Your task to perform on an android device: Open notification settings Image 0: 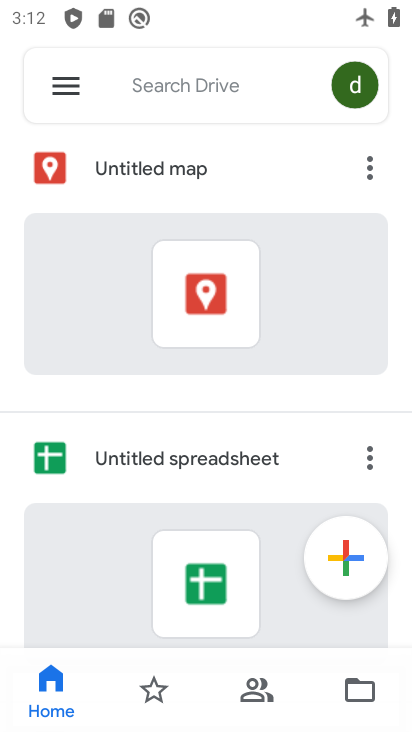
Step 0: press home button
Your task to perform on an android device: Open notification settings Image 1: 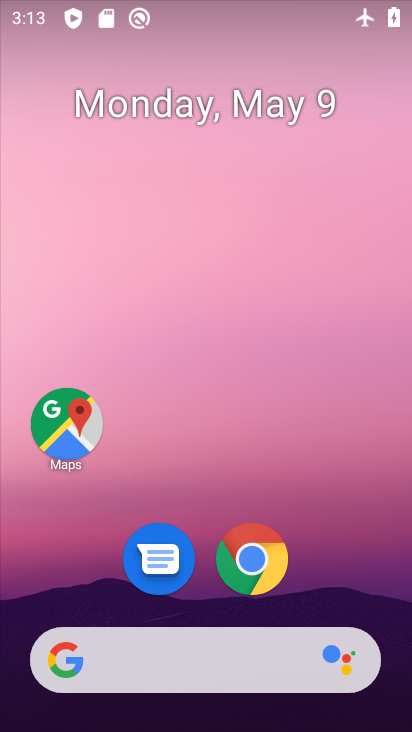
Step 1: drag from (200, 722) to (197, 143)
Your task to perform on an android device: Open notification settings Image 2: 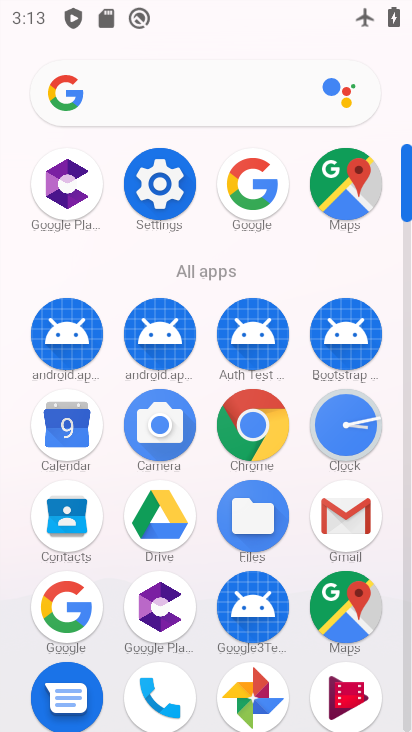
Step 2: click (155, 189)
Your task to perform on an android device: Open notification settings Image 3: 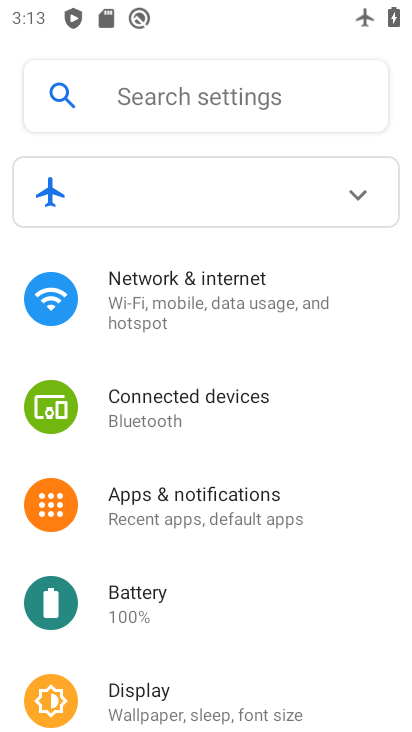
Step 3: click (173, 508)
Your task to perform on an android device: Open notification settings Image 4: 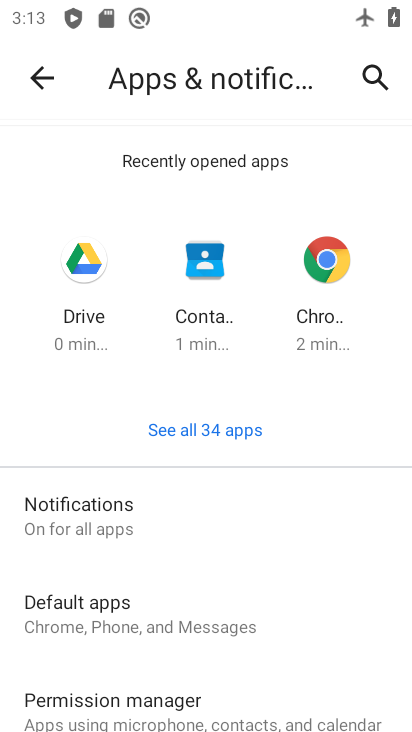
Step 4: click (71, 523)
Your task to perform on an android device: Open notification settings Image 5: 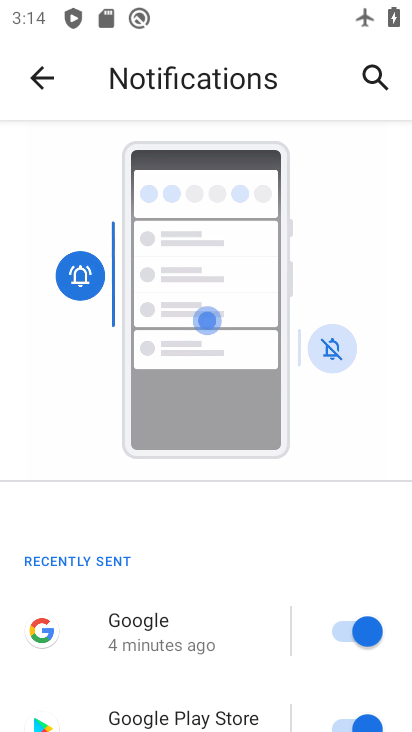
Step 5: task complete